Your task to perform on an android device: What is the recent news? Image 0: 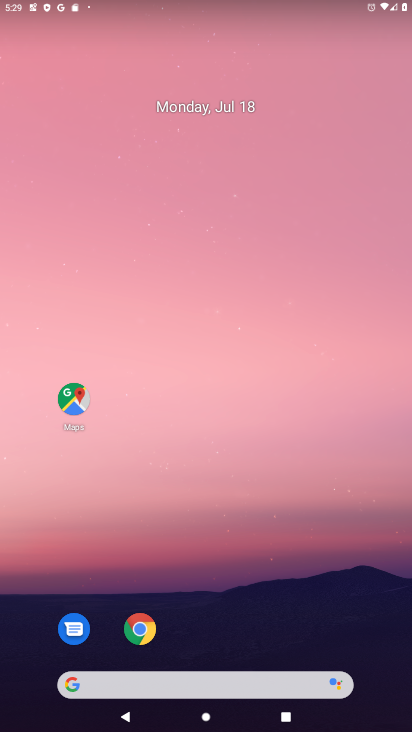
Step 0: drag from (229, 566) to (167, 98)
Your task to perform on an android device: What is the recent news? Image 1: 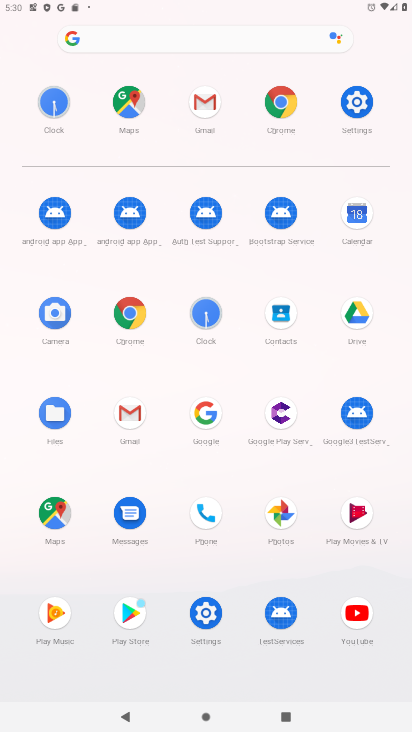
Step 1: click (278, 98)
Your task to perform on an android device: What is the recent news? Image 2: 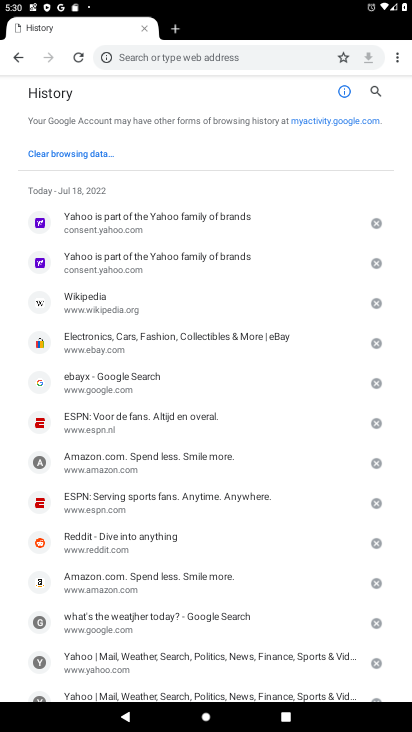
Step 2: click (188, 58)
Your task to perform on an android device: What is the recent news? Image 3: 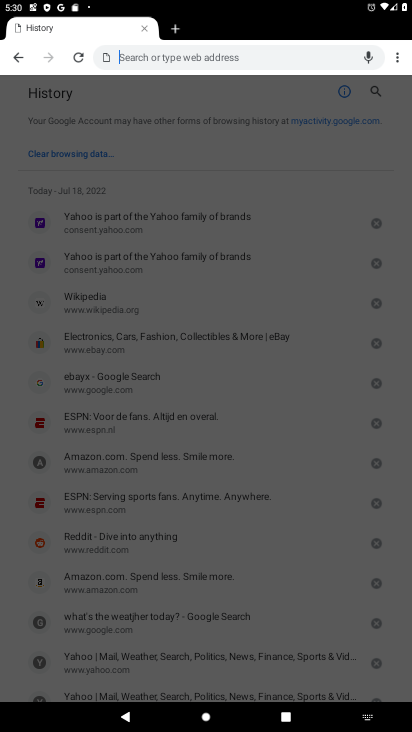
Step 3: type "news"
Your task to perform on an android device: What is the recent news? Image 4: 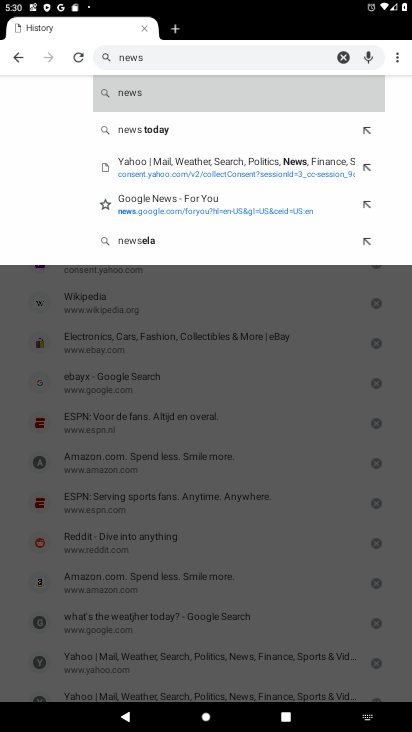
Step 4: click (126, 105)
Your task to perform on an android device: What is the recent news? Image 5: 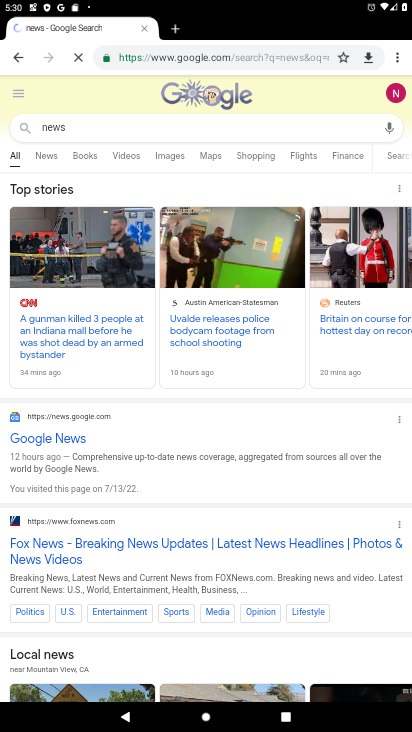
Step 5: click (51, 439)
Your task to perform on an android device: What is the recent news? Image 6: 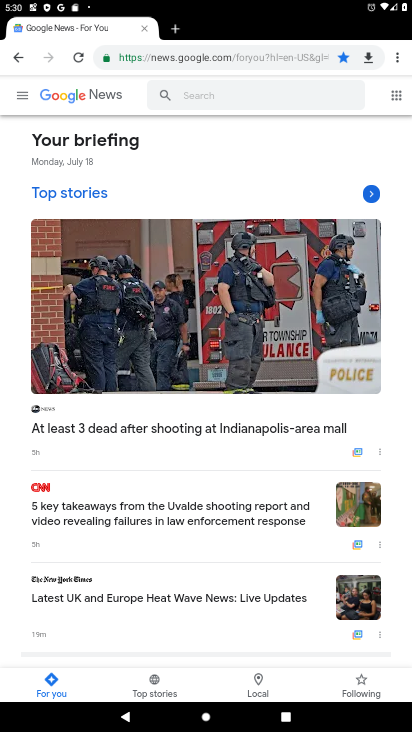
Step 6: task complete